Your task to perform on an android device: change the clock display to show seconds Image 0: 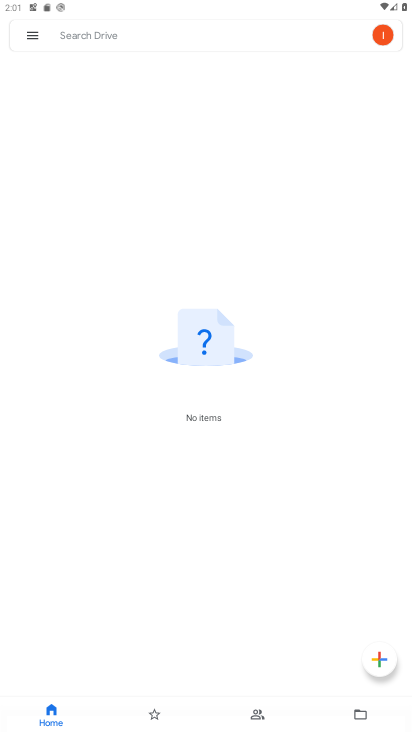
Step 0: press home button
Your task to perform on an android device: change the clock display to show seconds Image 1: 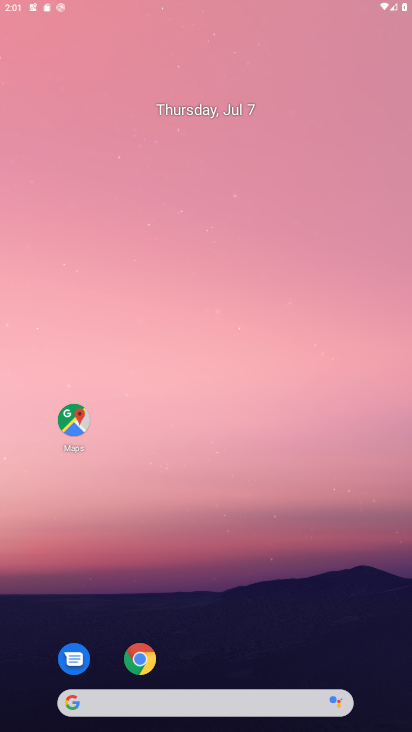
Step 1: drag from (240, 626) to (315, 19)
Your task to perform on an android device: change the clock display to show seconds Image 2: 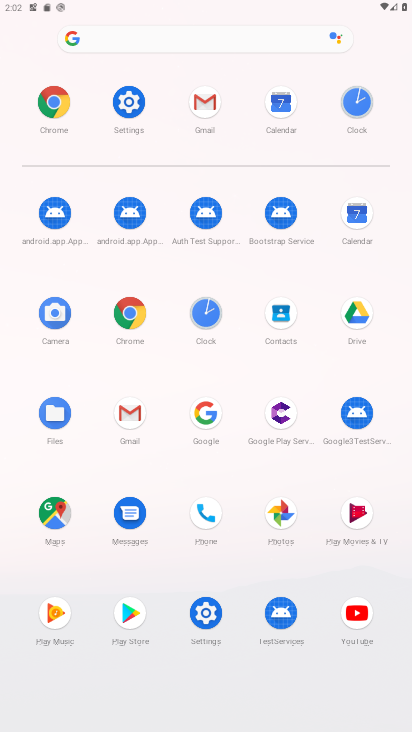
Step 2: click (188, 322)
Your task to perform on an android device: change the clock display to show seconds Image 3: 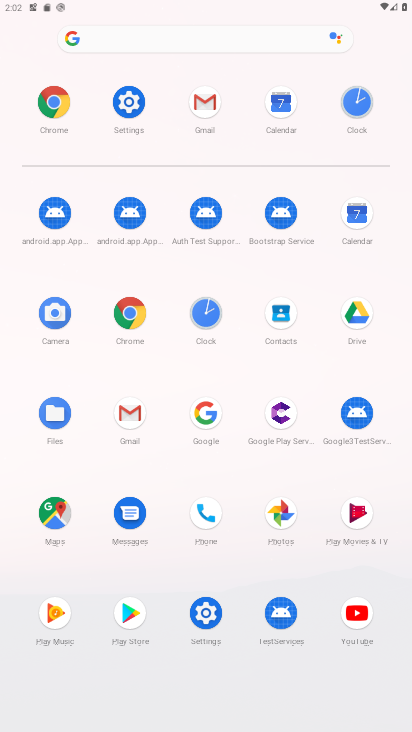
Step 3: click (188, 322)
Your task to perform on an android device: change the clock display to show seconds Image 4: 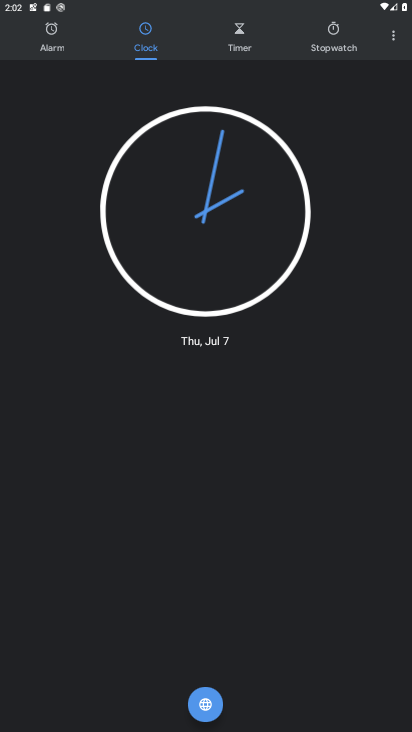
Step 4: click (392, 43)
Your task to perform on an android device: change the clock display to show seconds Image 5: 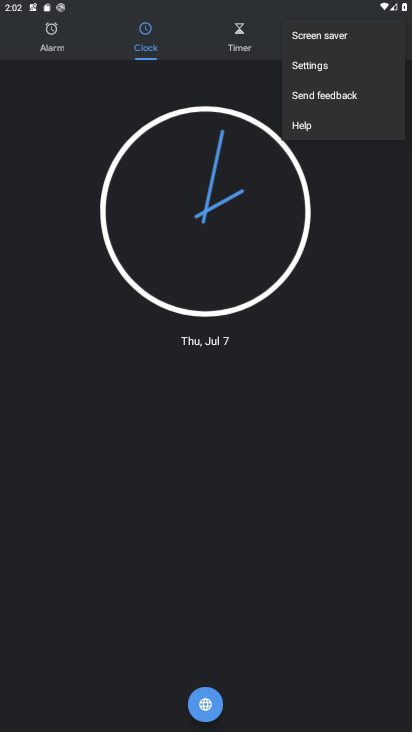
Step 5: click (314, 68)
Your task to perform on an android device: change the clock display to show seconds Image 6: 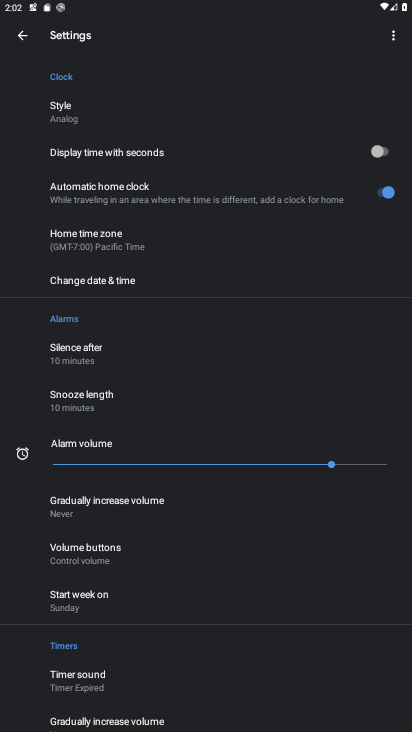
Step 6: click (354, 142)
Your task to perform on an android device: change the clock display to show seconds Image 7: 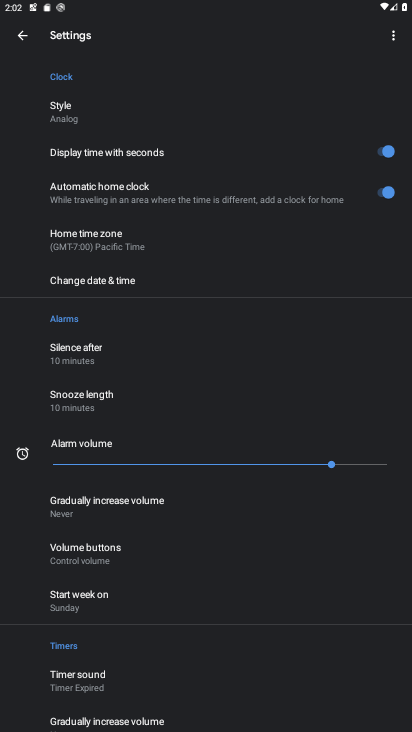
Step 7: task complete